Your task to perform on an android device: delete the emails in spam in the gmail app Image 0: 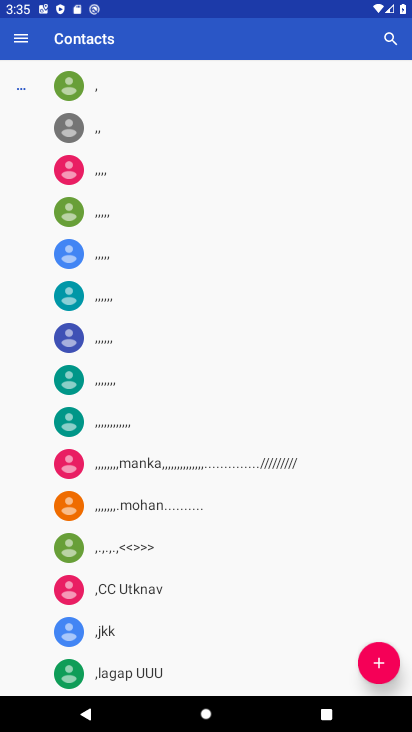
Step 0: press home button
Your task to perform on an android device: delete the emails in spam in the gmail app Image 1: 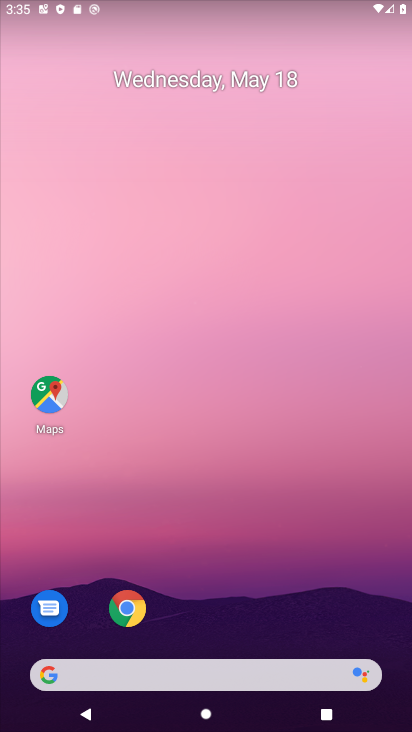
Step 1: drag from (183, 627) to (178, 49)
Your task to perform on an android device: delete the emails in spam in the gmail app Image 2: 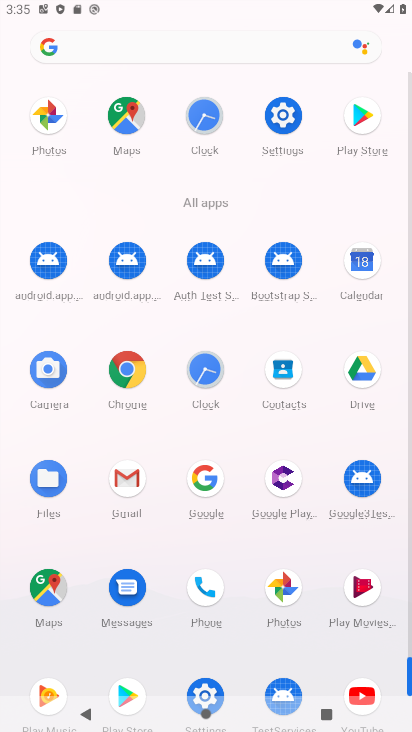
Step 2: click (124, 475)
Your task to perform on an android device: delete the emails in spam in the gmail app Image 3: 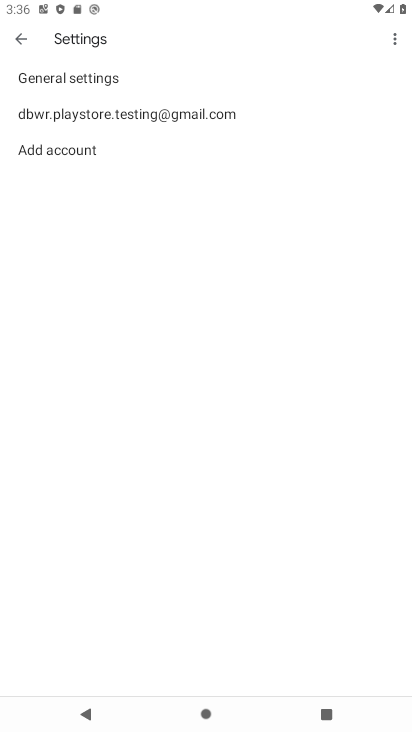
Step 3: click (30, 43)
Your task to perform on an android device: delete the emails in spam in the gmail app Image 4: 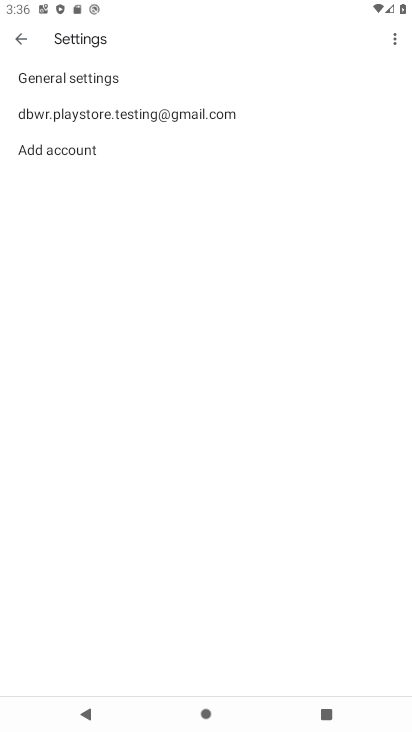
Step 4: task complete